Your task to perform on an android device: turn off priority inbox in the gmail app Image 0: 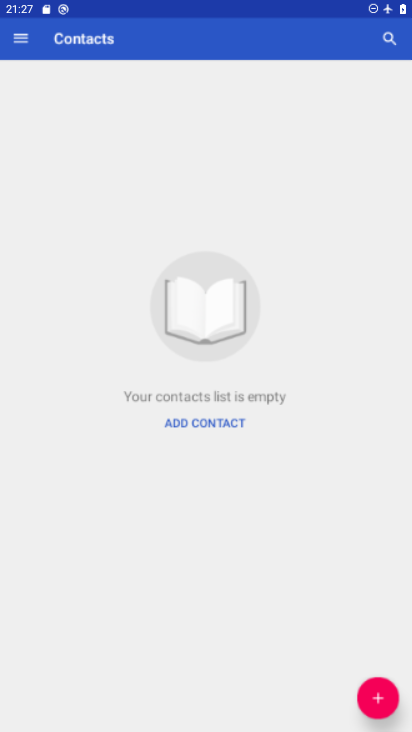
Step 0: click (238, 634)
Your task to perform on an android device: turn off priority inbox in the gmail app Image 1: 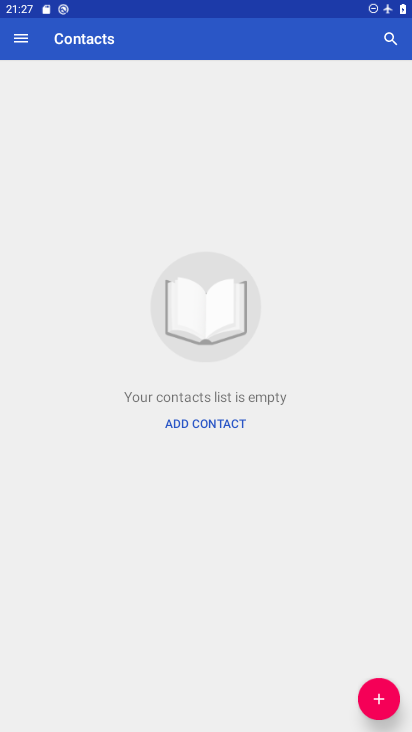
Step 1: press home button
Your task to perform on an android device: turn off priority inbox in the gmail app Image 2: 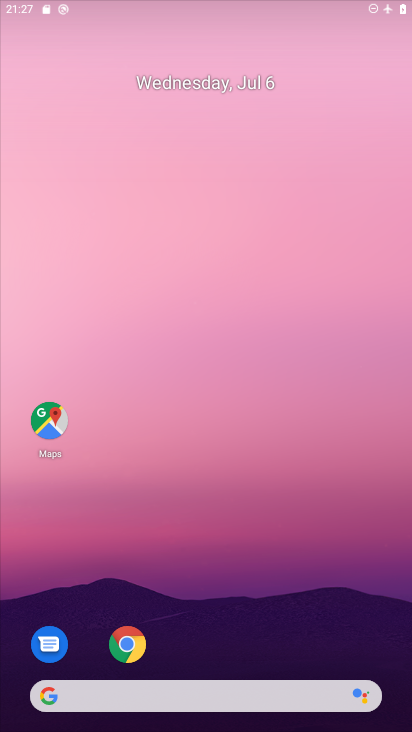
Step 2: drag from (212, 602) to (216, 162)
Your task to perform on an android device: turn off priority inbox in the gmail app Image 3: 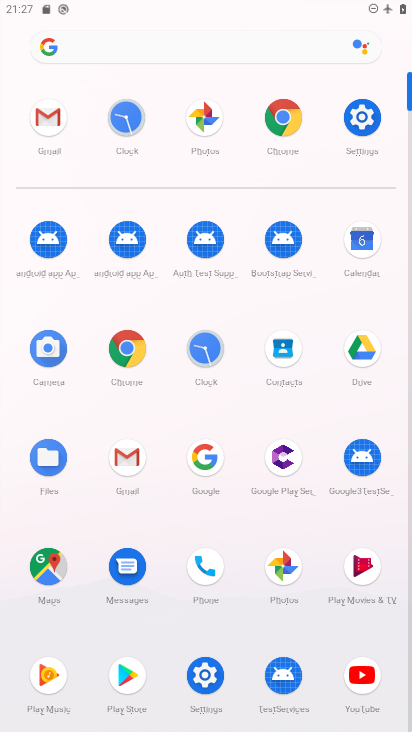
Step 3: click (49, 117)
Your task to perform on an android device: turn off priority inbox in the gmail app Image 4: 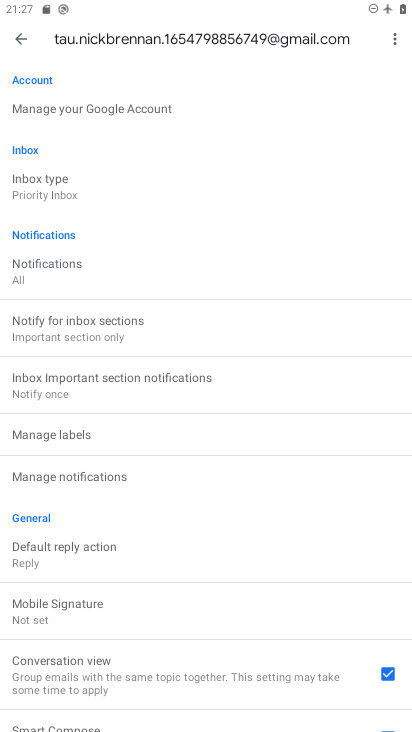
Step 4: click (145, 198)
Your task to perform on an android device: turn off priority inbox in the gmail app Image 5: 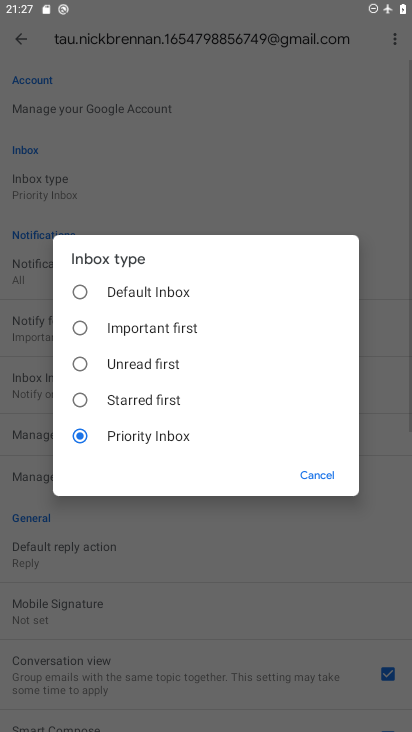
Step 5: click (96, 302)
Your task to perform on an android device: turn off priority inbox in the gmail app Image 6: 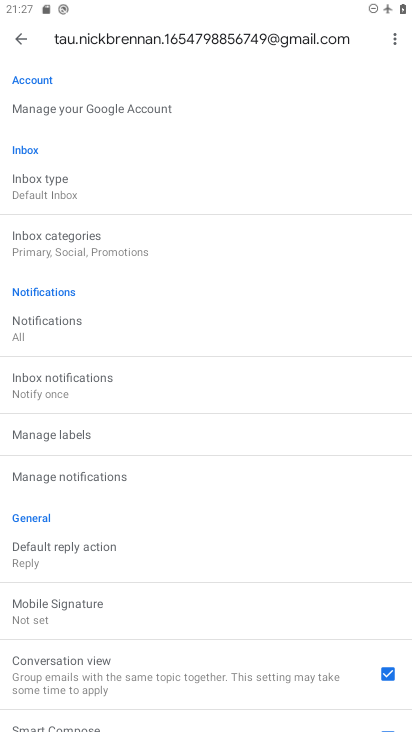
Step 6: task complete